Your task to perform on an android device: toggle location history Image 0: 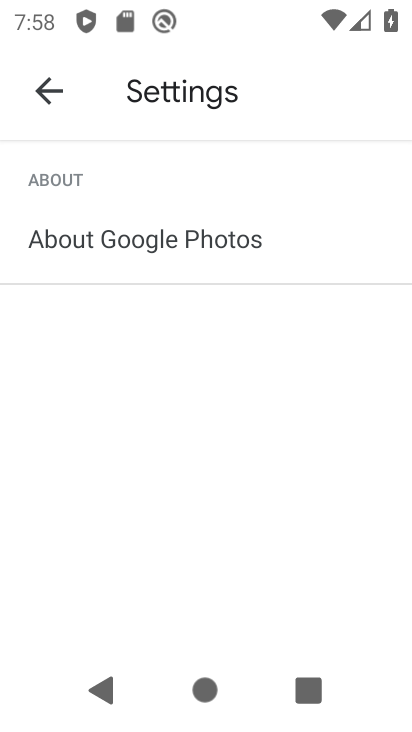
Step 0: press back button
Your task to perform on an android device: toggle location history Image 1: 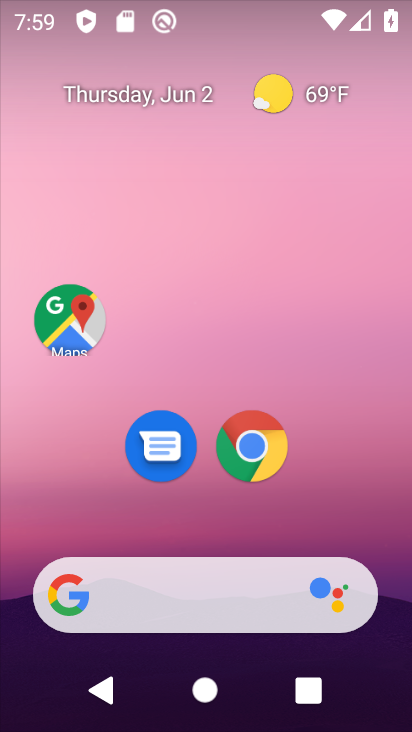
Step 1: drag from (187, 465) to (223, 85)
Your task to perform on an android device: toggle location history Image 2: 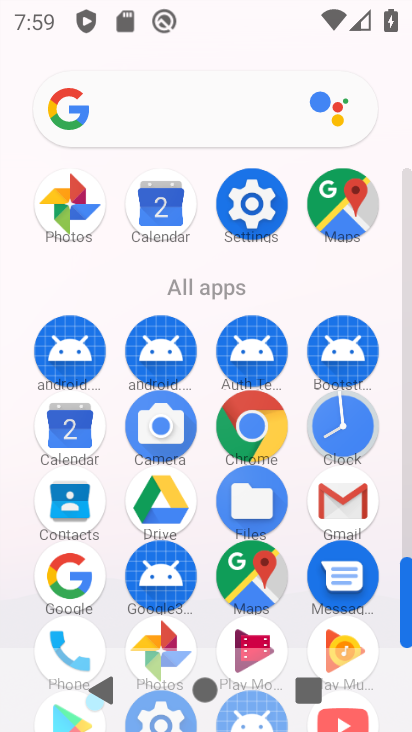
Step 2: click (245, 210)
Your task to perform on an android device: toggle location history Image 3: 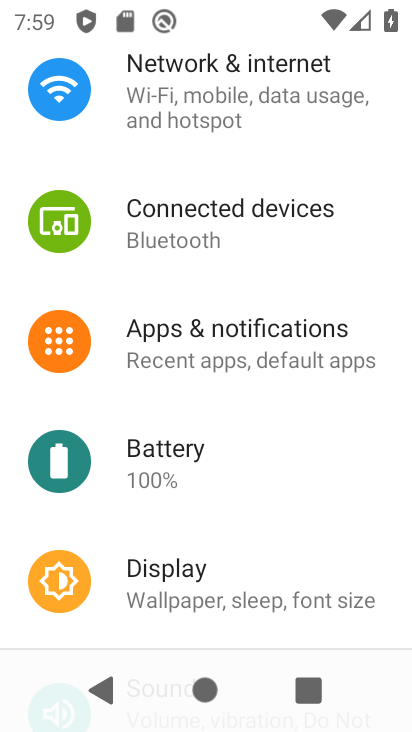
Step 3: drag from (215, 558) to (289, 35)
Your task to perform on an android device: toggle location history Image 4: 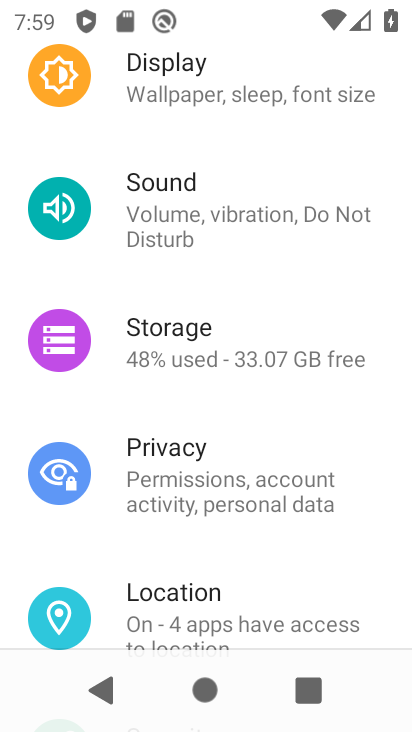
Step 4: click (165, 614)
Your task to perform on an android device: toggle location history Image 5: 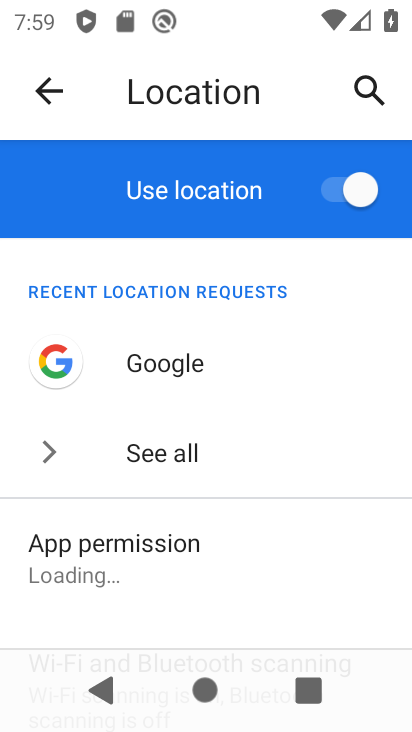
Step 5: drag from (177, 572) to (235, 148)
Your task to perform on an android device: toggle location history Image 6: 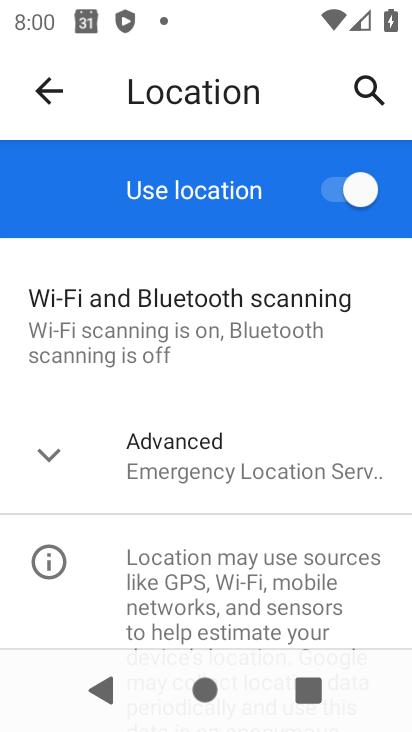
Step 6: click (195, 485)
Your task to perform on an android device: toggle location history Image 7: 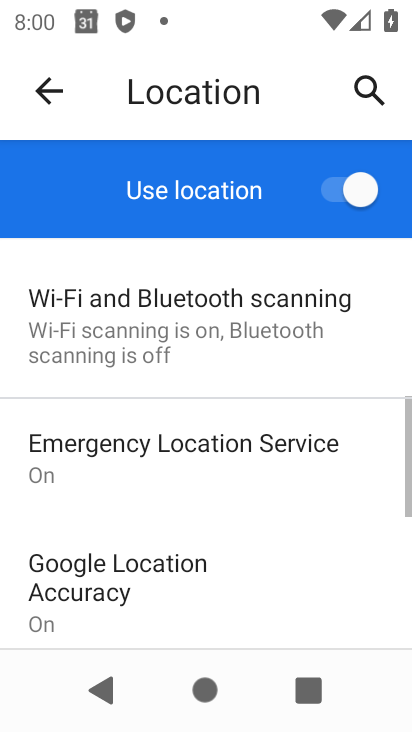
Step 7: drag from (161, 591) to (224, 206)
Your task to perform on an android device: toggle location history Image 8: 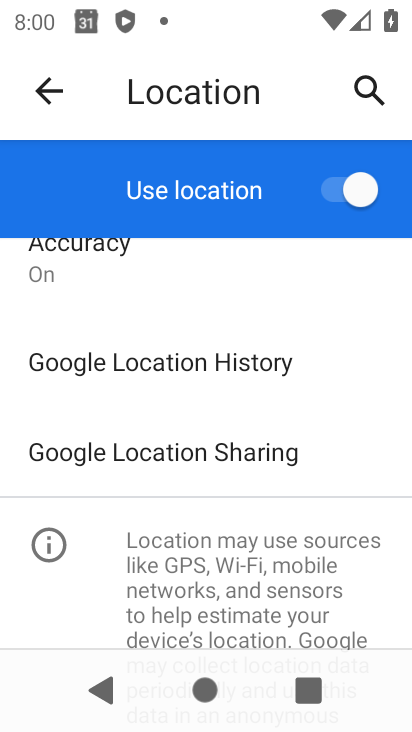
Step 8: click (197, 370)
Your task to perform on an android device: toggle location history Image 9: 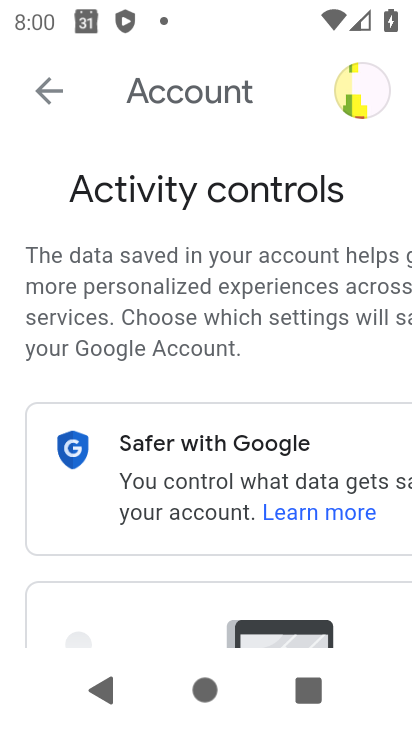
Step 9: drag from (203, 602) to (240, 86)
Your task to perform on an android device: toggle location history Image 10: 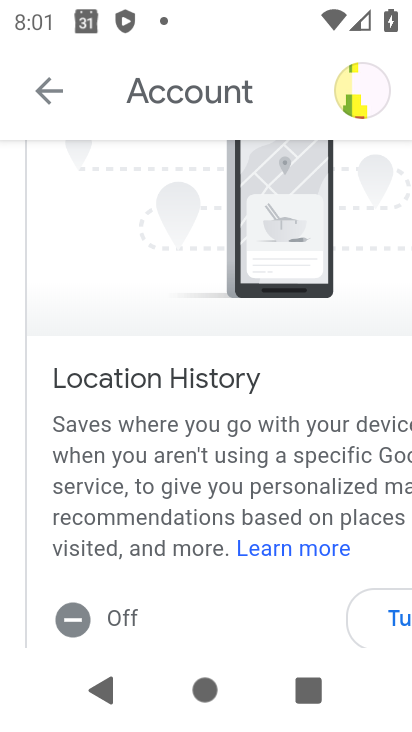
Step 10: click (386, 613)
Your task to perform on an android device: toggle location history Image 11: 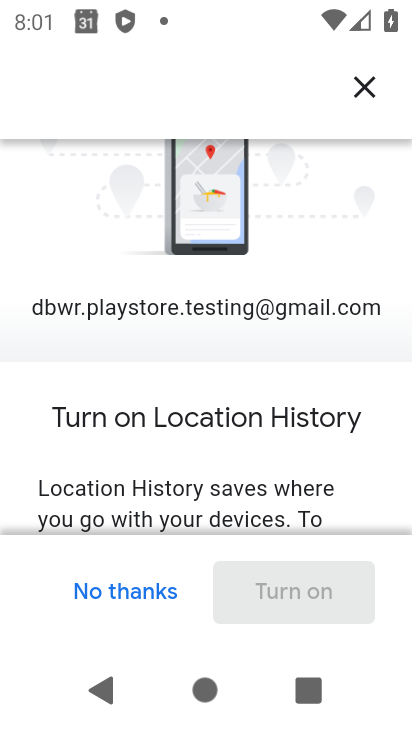
Step 11: drag from (173, 446) to (199, 181)
Your task to perform on an android device: toggle location history Image 12: 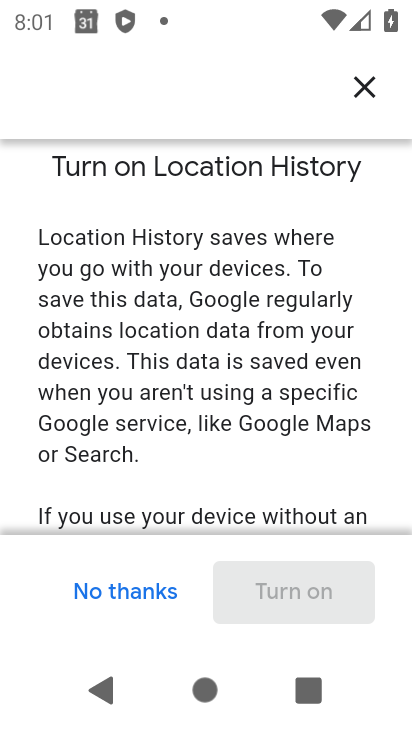
Step 12: drag from (183, 499) to (263, 99)
Your task to perform on an android device: toggle location history Image 13: 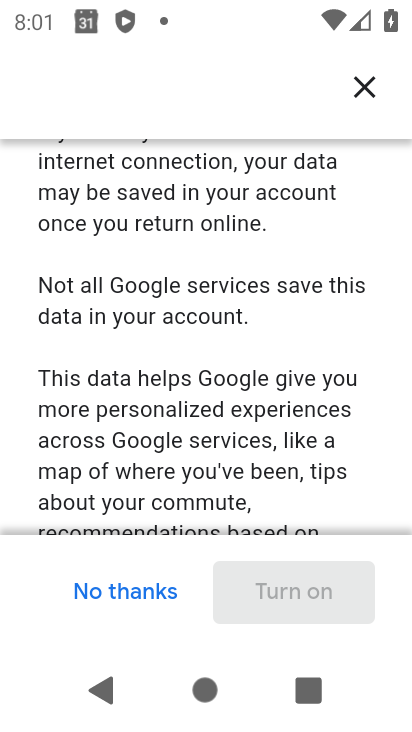
Step 13: drag from (182, 504) to (235, 116)
Your task to perform on an android device: toggle location history Image 14: 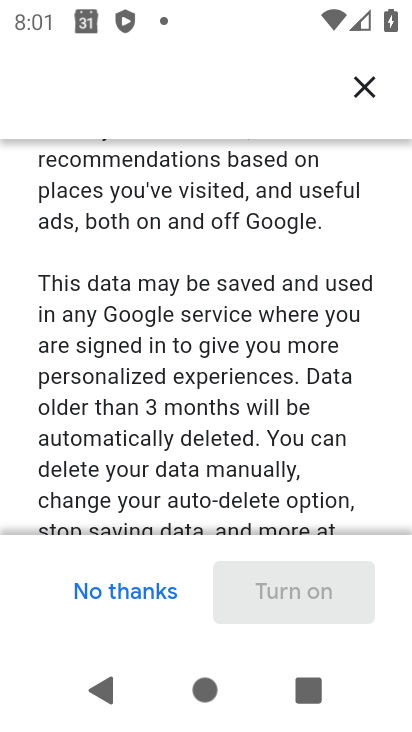
Step 14: drag from (240, 506) to (325, 102)
Your task to perform on an android device: toggle location history Image 15: 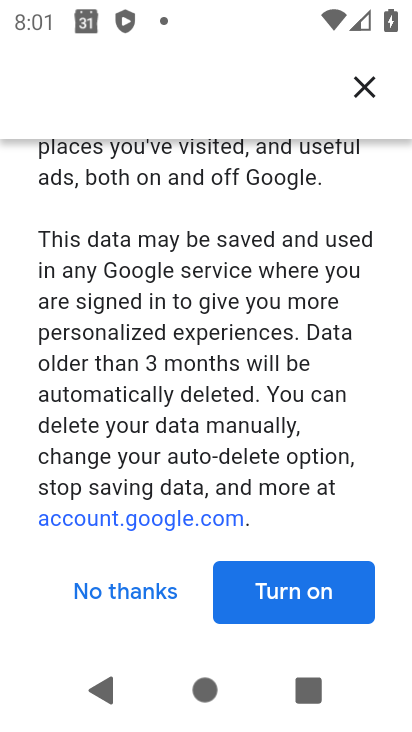
Step 15: click (307, 609)
Your task to perform on an android device: toggle location history Image 16: 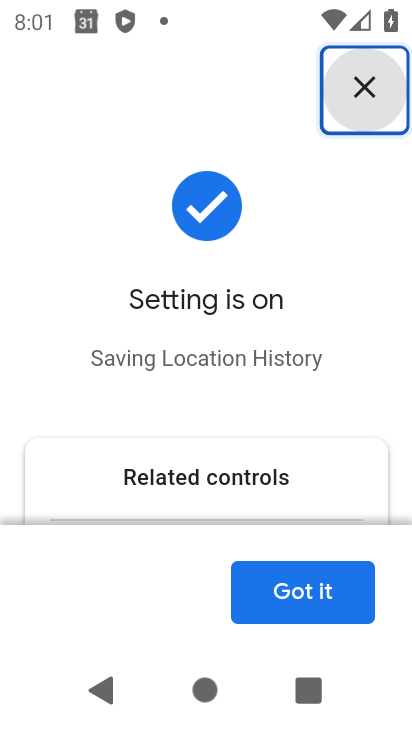
Step 16: task complete